Your task to perform on an android device: Clear the cart on newegg. Add "apple airpods" to the cart on newegg Image 0: 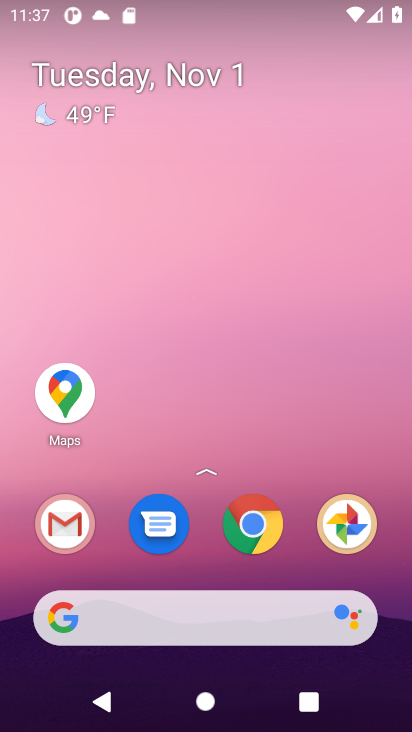
Step 0: click (117, 613)
Your task to perform on an android device: Clear the cart on newegg. Add "apple airpods" to the cart on newegg Image 1: 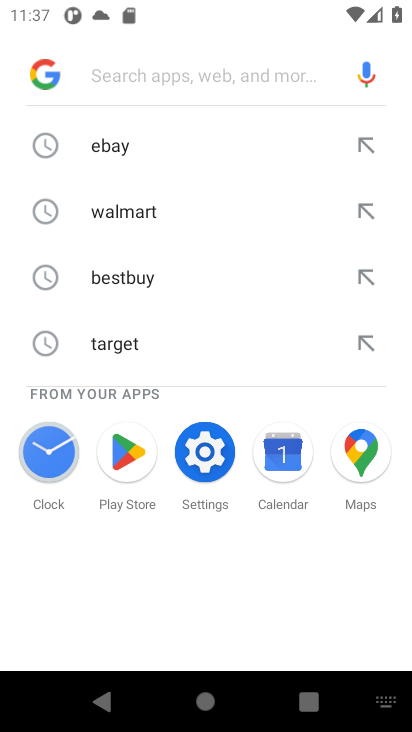
Step 1: type "newegg"
Your task to perform on an android device: Clear the cart on newegg. Add "apple airpods" to the cart on newegg Image 2: 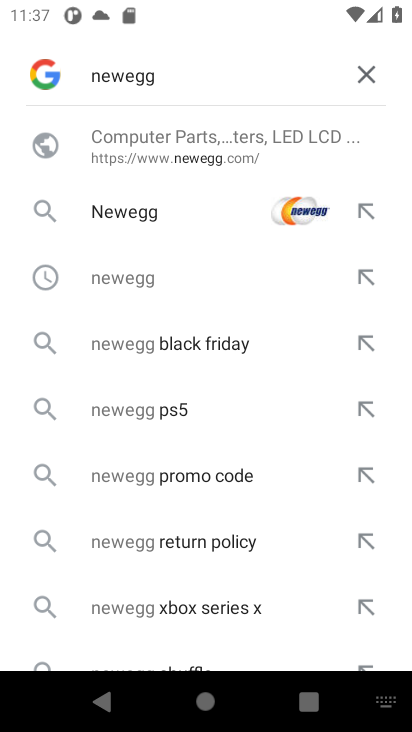
Step 2: press enter
Your task to perform on an android device: Clear the cart on newegg. Add "apple airpods" to the cart on newegg Image 3: 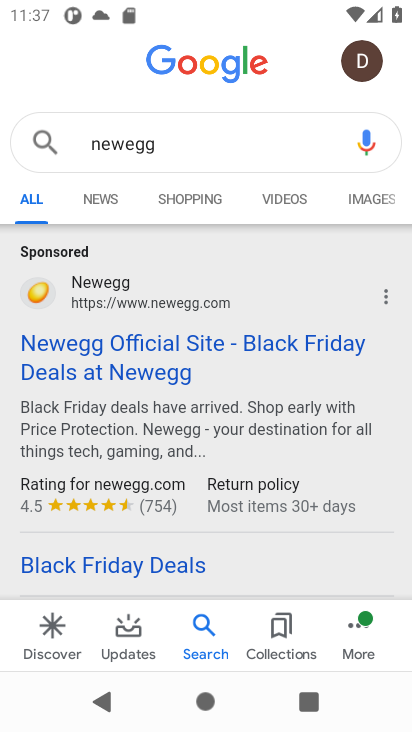
Step 3: click (151, 351)
Your task to perform on an android device: Clear the cart on newegg. Add "apple airpods" to the cart on newegg Image 4: 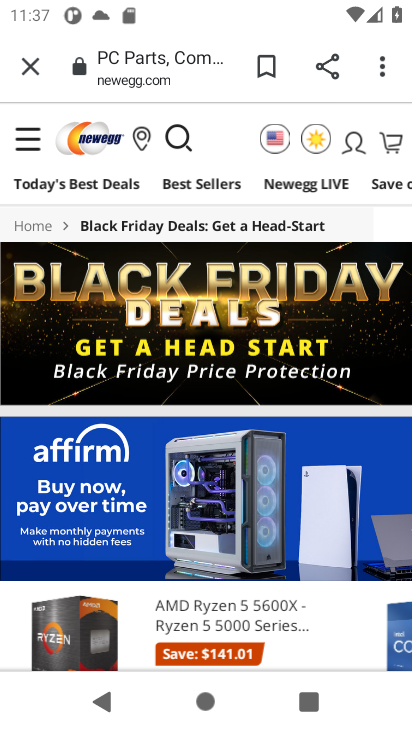
Step 4: click (389, 135)
Your task to perform on an android device: Clear the cart on newegg. Add "apple airpods" to the cart on newegg Image 5: 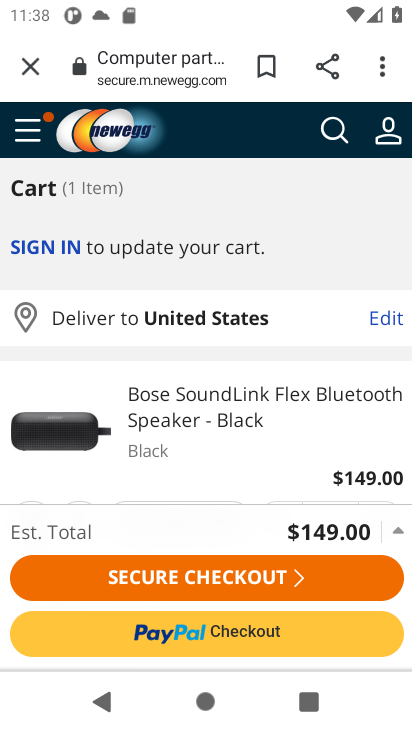
Step 5: drag from (174, 445) to (186, 303)
Your task to perform on an android device: Clear the cart on newegg. Add "apple airpods" to the cart on newegg Image 6: 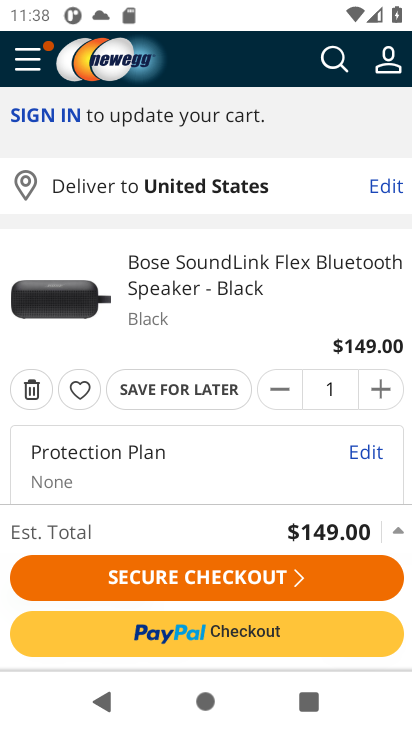
Step 6: drag from (187, 433) to (213, 313)
Your task to perform on an android device: Clear the cart on newegg. Add "apple airpods" to the cart on newegg Image 7: 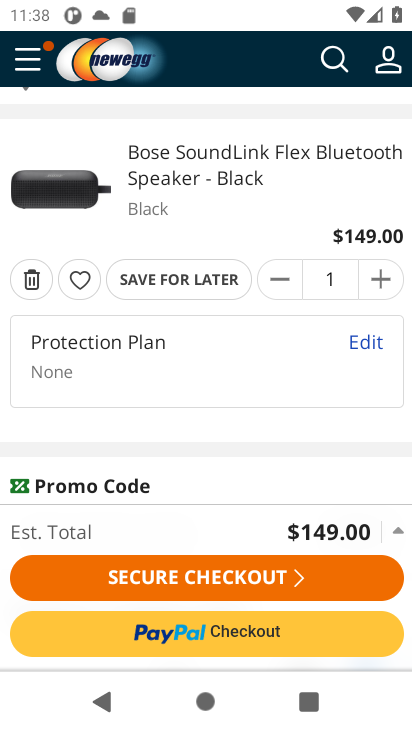
Step 7: click (36, 281)
Your task to perform on an android device: Clear the cart on newegg. Add "apple airpods" to the cart on newegg Image 8: 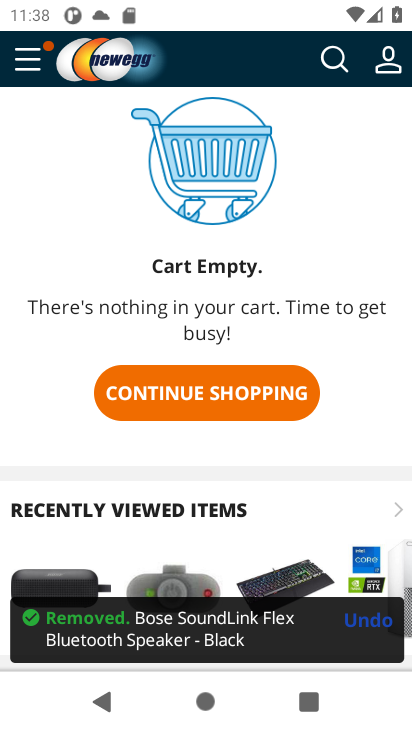
Step 8: drag from (108, 481) to (135, 322)
Your task to perform on an android device: Clear the cart on newegg. Add "apple airpods" to the cart on newegg Image 9: 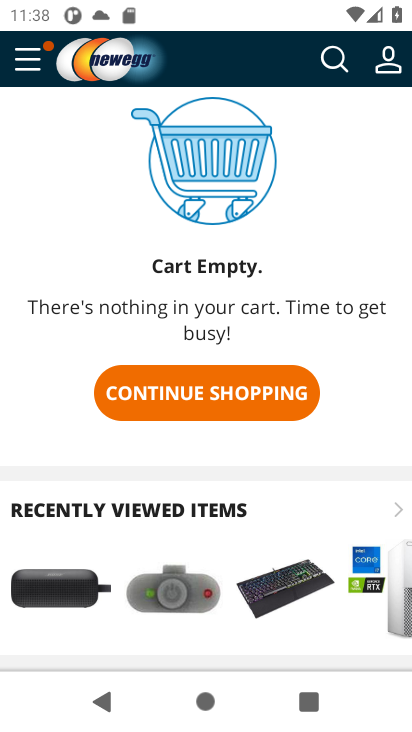
Step 9: drag from (123, 505) to (152, 331)
Your task to perform on an android device: Clear the cart on newegg. Add "apple airpods" to the cart on newegg Image 10: 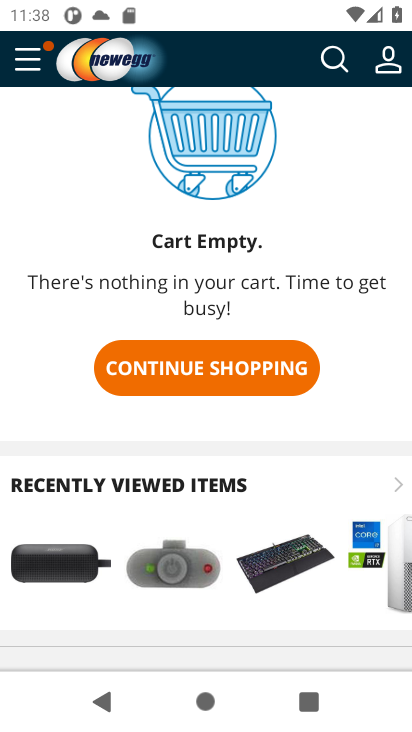
Step 10: click (332, 60)
Your task to perform on an android device: Clear the cart on newegg. Add "apple airpods" to the cart on newegg Image 11: 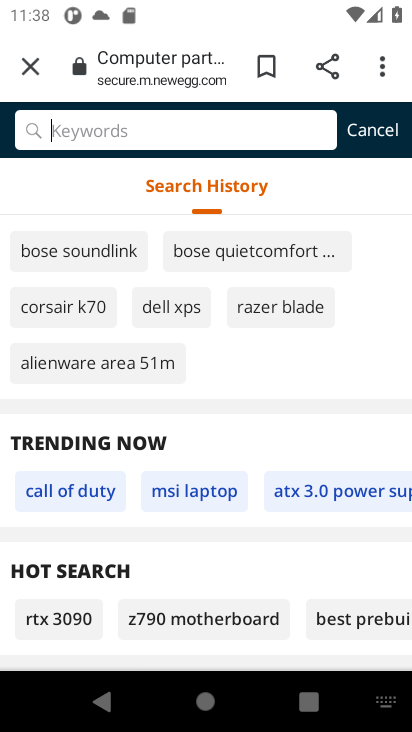
Step 11: type "apple airpods"
Your task to perform on an android device: Clear the cart on newegg. Add "apple airpods" to the cart on newegg Image 12: 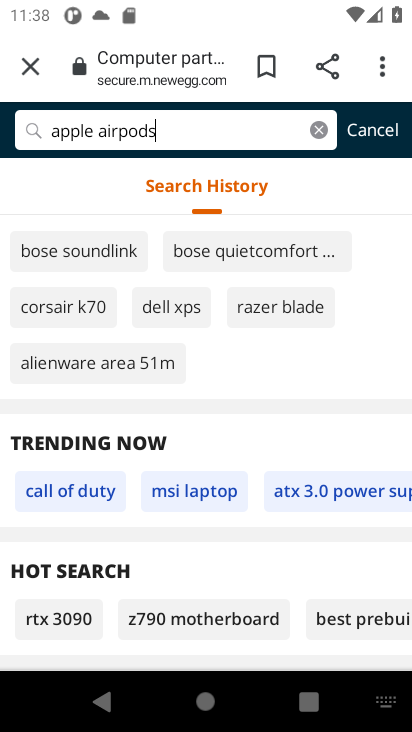
Step 12: press enter
Your task to perform on an android device: Clear the cart on newegg. Add "apple airpods" to the cart on newegg Image 13: 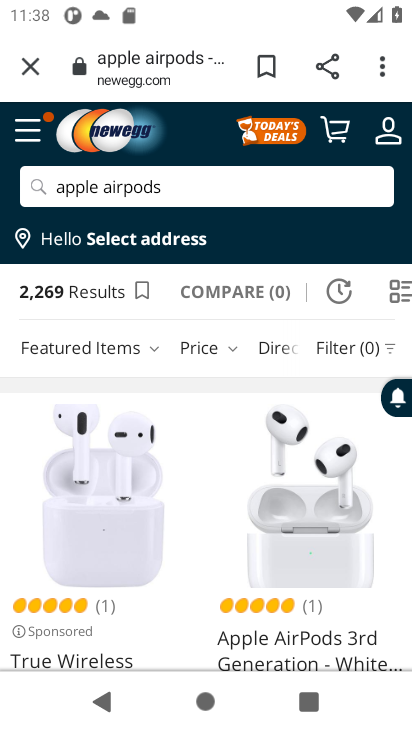
Step 13: drag from (209, 565) to (216, 433)
Your task to perform on an android device: Clear the cart on newegg. Add "apple airpods" to the cart on newegg Image 14: 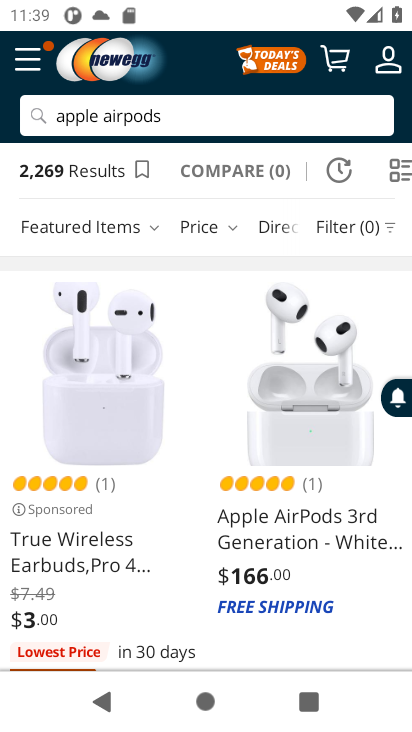
Step 14: click (268, 526)
Your task to perform on an android device: Clear the cart on newegg. Add "apple airpods" to the cart on newegg Image 15: 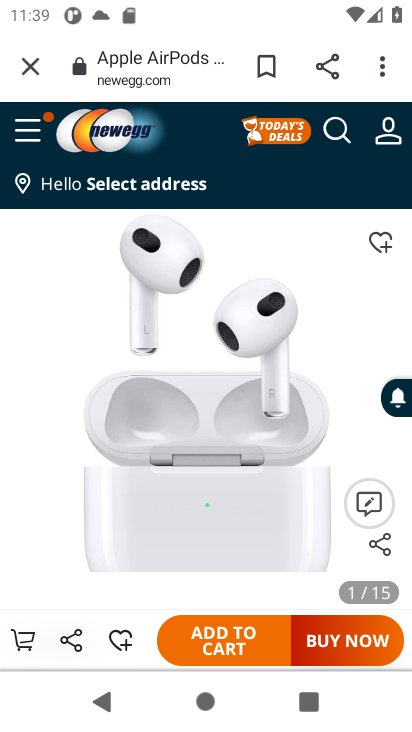
Step 15: click (234, 645)
Your task to perform on an android device: Clear the cart on newegg. Add "apple airpods" to the cart on newegg Image 16: 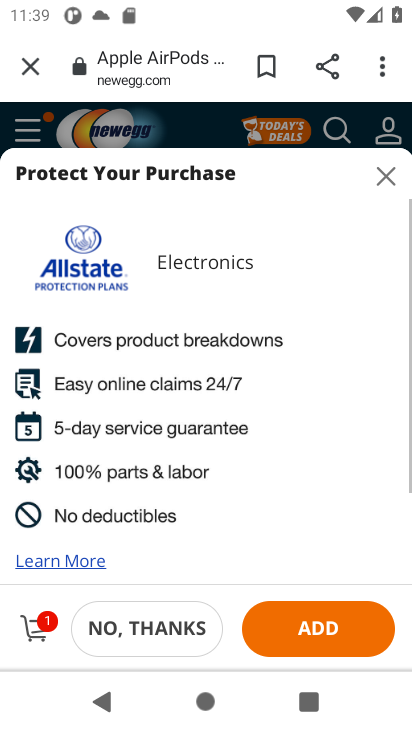
Step 16: click (121, 625)
Your task to perform on an android device: Clear the cart on newegg. Add "apple airpods" to the cart on newegg Image 17: 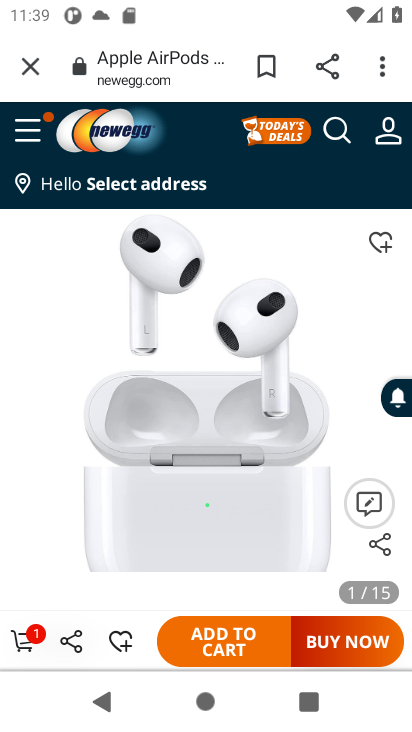
Step 17: task complete